Your task to perform on an android device: turn on sleep mode Image 0: 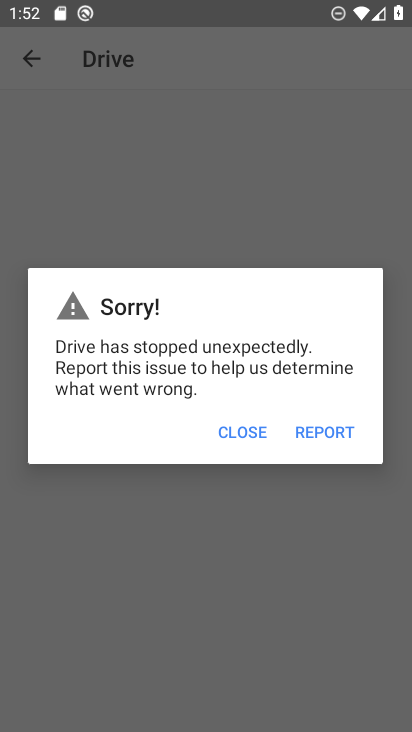
Step 0: press home button
Your task to perform on an android device: turn on sleep mode Image 1: 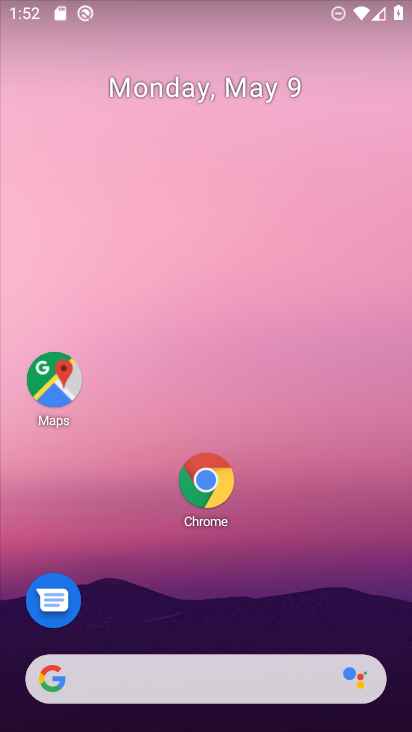
Step 1: drag from (204, 668) to (336, 137)
Your task to perform on an android device: turn on sleep mode Image 2: 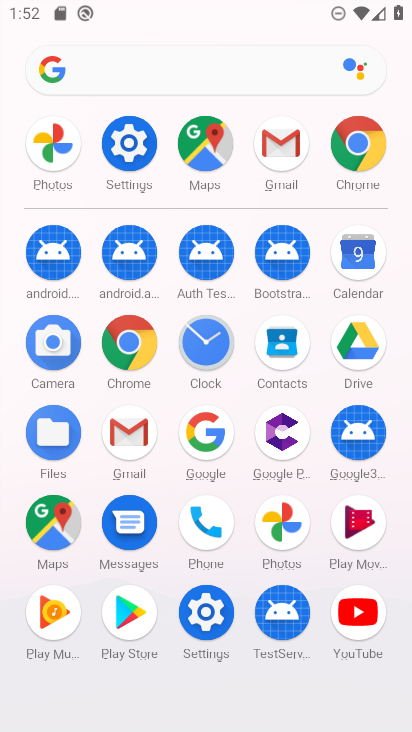
Step 2: click (116, 144)
Your task to perform on an android device: turn on sleep mode Image 3: 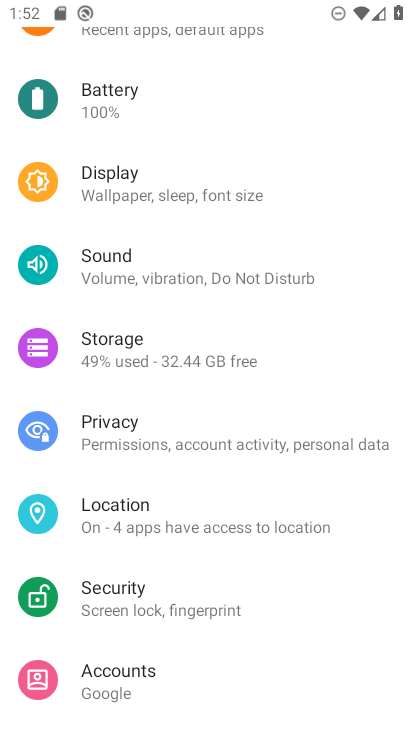
Step 3: click (140, 194)
Your task to perform on an android device: turn on sleep mode Image 4: 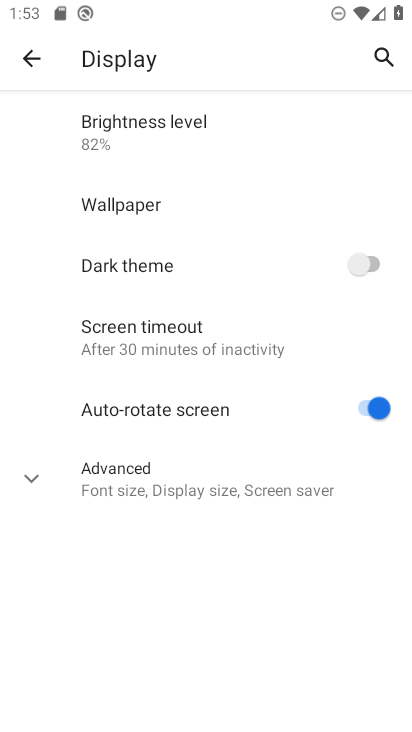
Step 4: task complete